Your task to perform on an android device: Show me the alarms in the clock app Image 0: 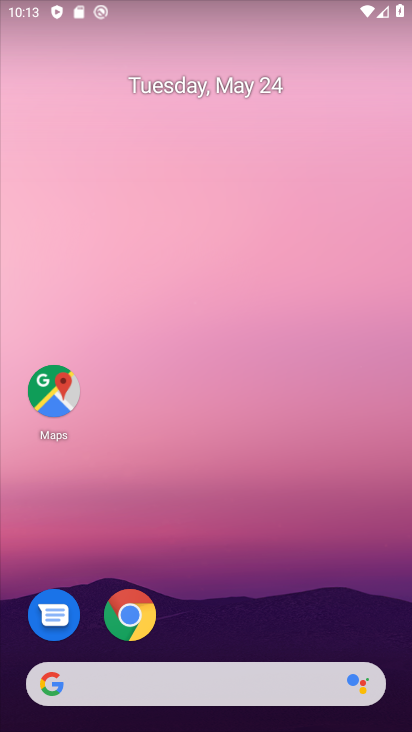
Step 0: drag from (300, 525) to (287, 58)
Your task to perform on an android device: Show me the alarms in the clock app Image 1: 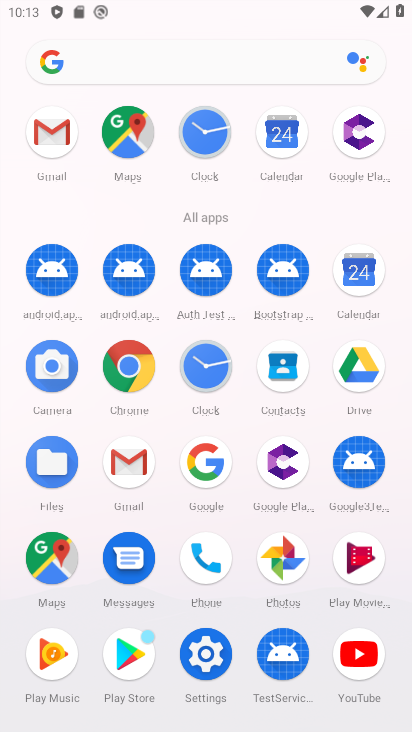
Step 1: click (216, 143)
Your task to perform on an android device: Show me the alarms in the clock app Image 2: 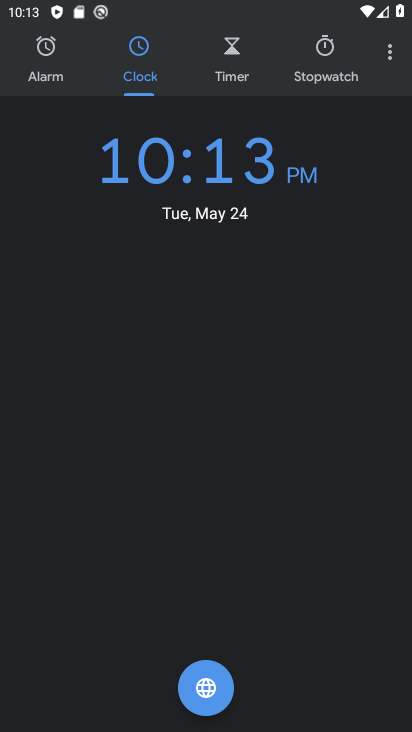
Step 2: click (49, 55)
Your task to perform on an android device: Show me the alarms in the clock app Image 3: 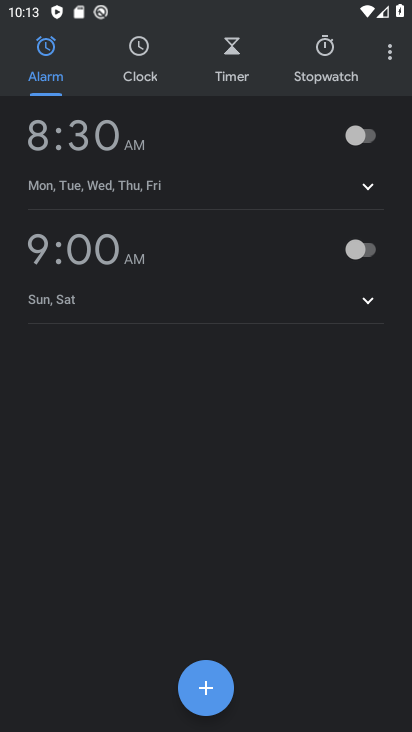
Step 3: task complete